Your task to perform on an android device: turn off improve location accuracy Image 0: 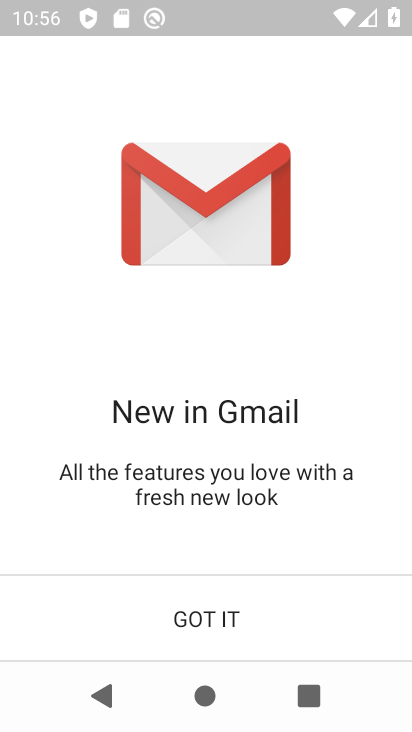
Step 0: press home button
Your task to perform on an android device: turn off improve location accuracy Image 1: 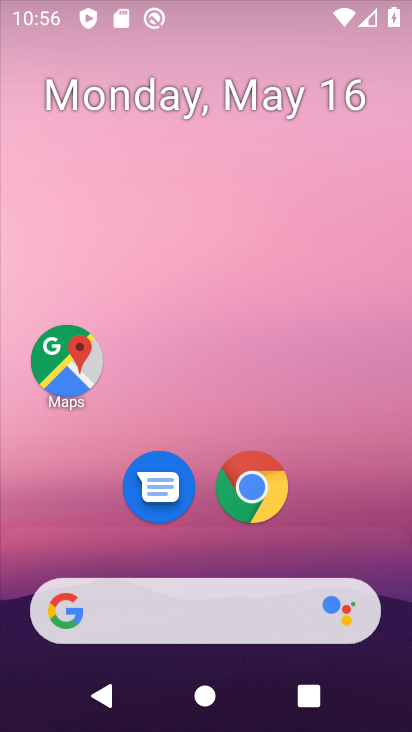
Step 1: drag from (18, 539) to (273, 114)
Your task to perform on an android device: turn off improve location accuracy Image 2: 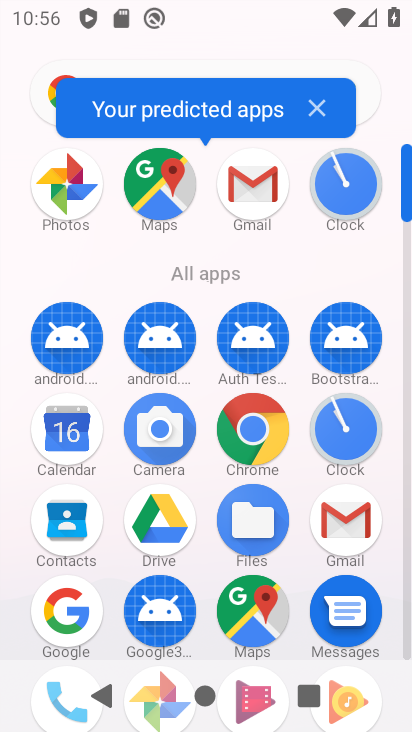
Step 2: drag from (36, 564) to (278, 169)
Your task to perform on an android device: turn off improve location accuracy Image 3: 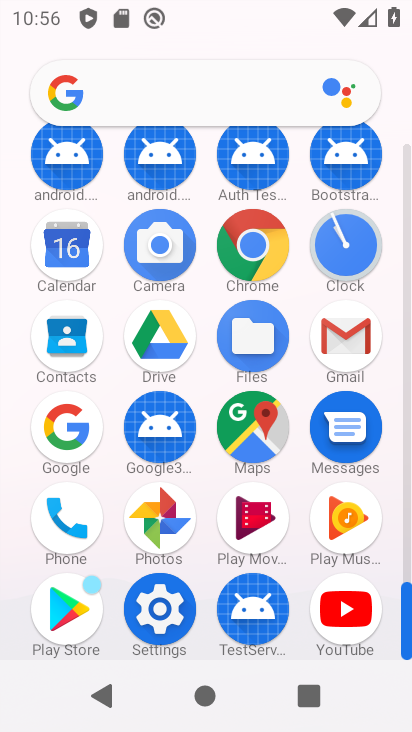
Step 3: click (159, 602)
Your task to perform on an android device: turn off improve location accuracy Image 4: 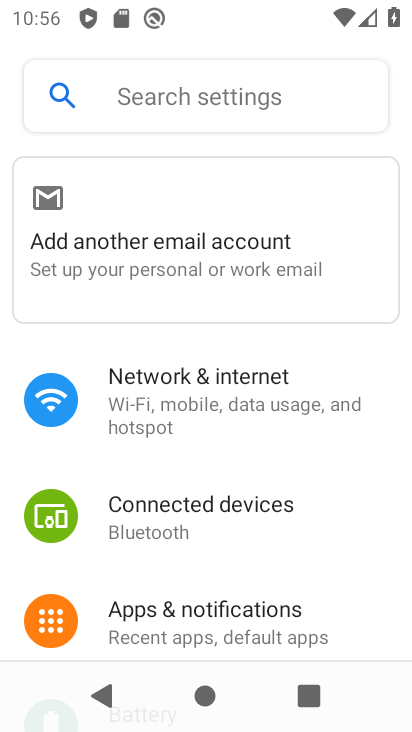
Step 4: drag from (2, 637) to (245, 151)
Your task to perform on an android device: turn off improve location accuracy Image 5: 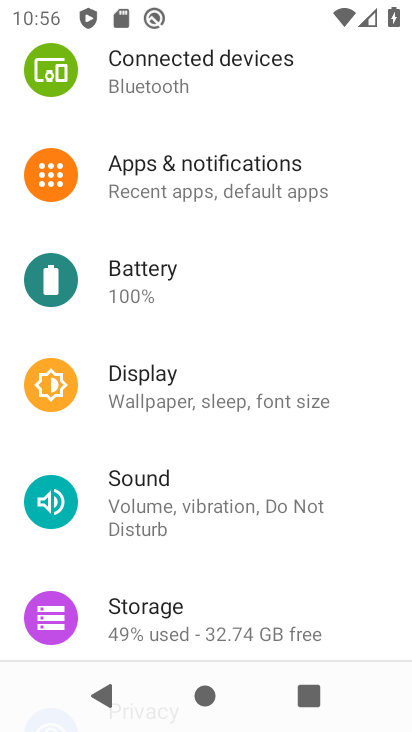
Step 5: drag from (99, 466) to (286, 138)
Your task to perform on an android device: turn off improve location accuracy Image 6: 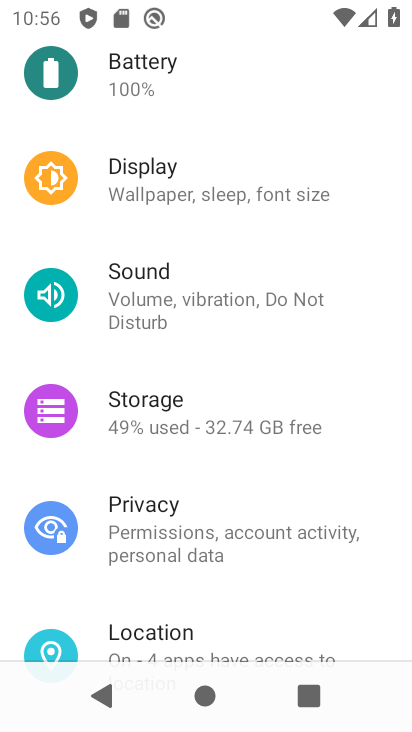
Step 6: click (178, 630)
Your task to perform on an android device: turn off improve location accuracy Image 7: 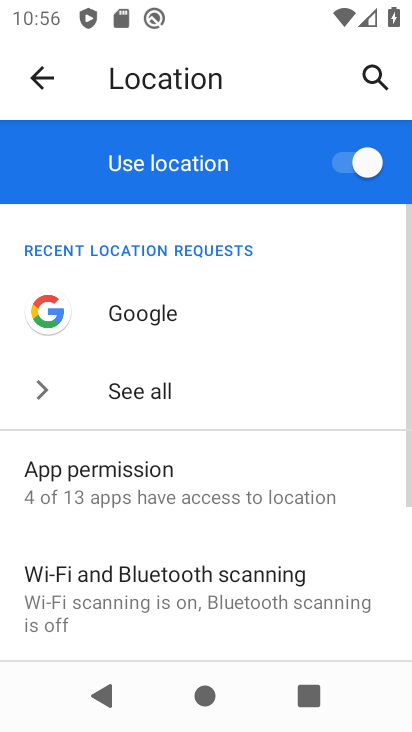
Step 7: drag from (26, 530) to (277, 113)
Your task to perform on an android device: turn off improve location accuracy Image 8: 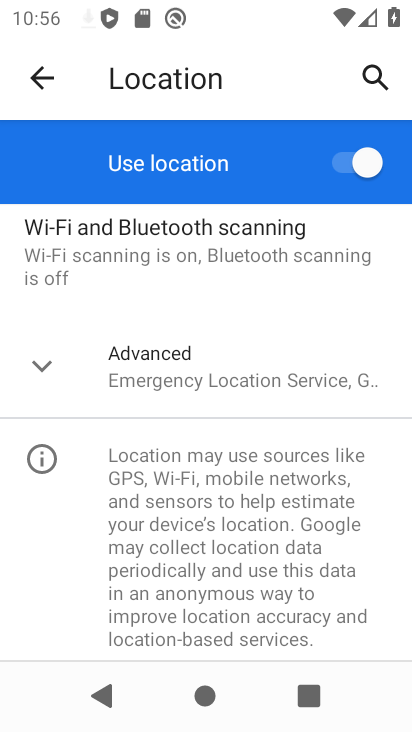
Step 8: click (197, 375)
Your task to perform on an android device: turn off improve location accuracy Image 9: 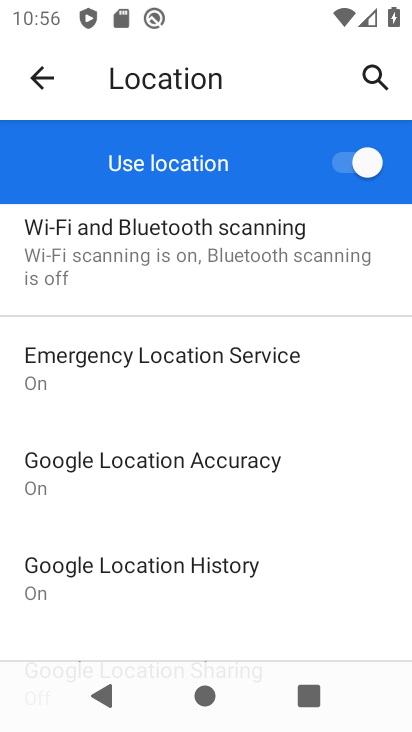
Step 9: click (199, 477)
Your task to perform on an android device: turn off improve location accuracy Image 10: 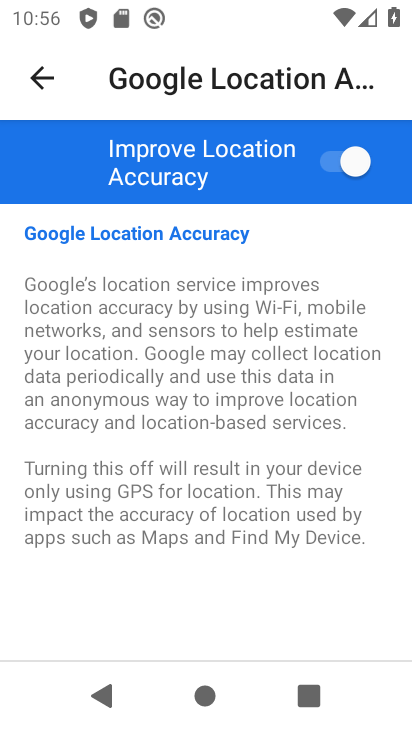
Step 10: click (365, 161)
Your task to perform on an android device: turn off improve location accuracy Image 11: 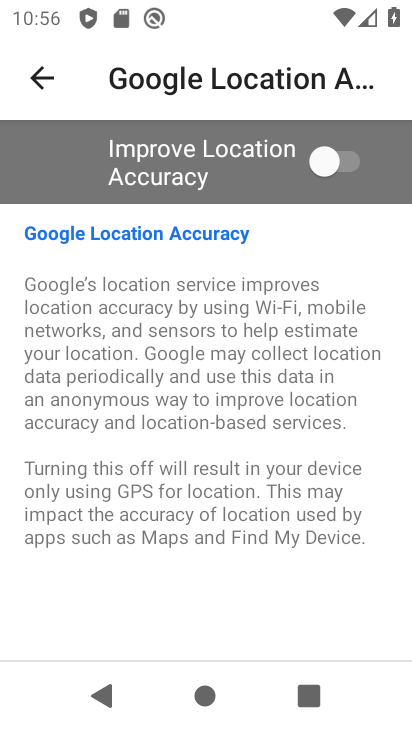
Step 11: task complete